Your task to perform on an android device: add a contact Image 0: 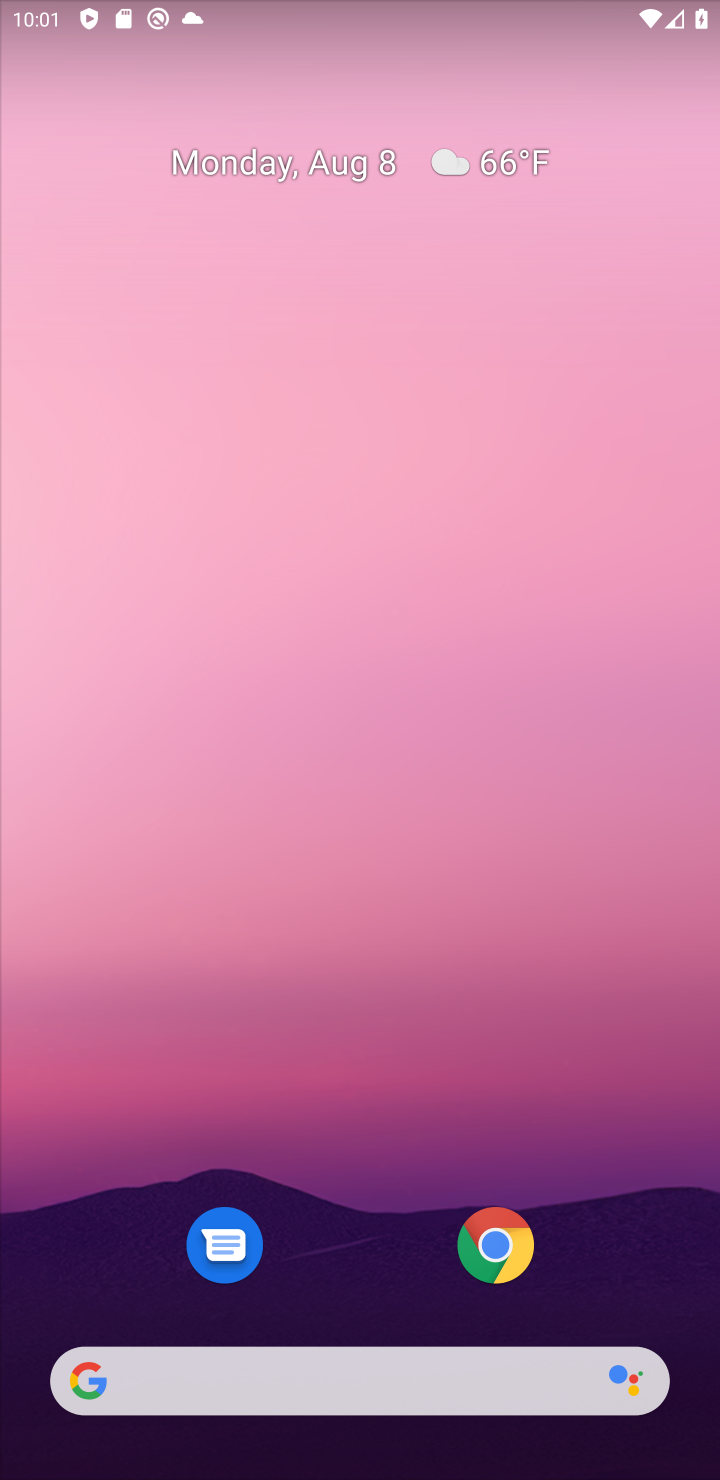
Step 0: drag from (367, 1174) to (326, 241)
Your task to perform on an android device: add a contact Image 1: 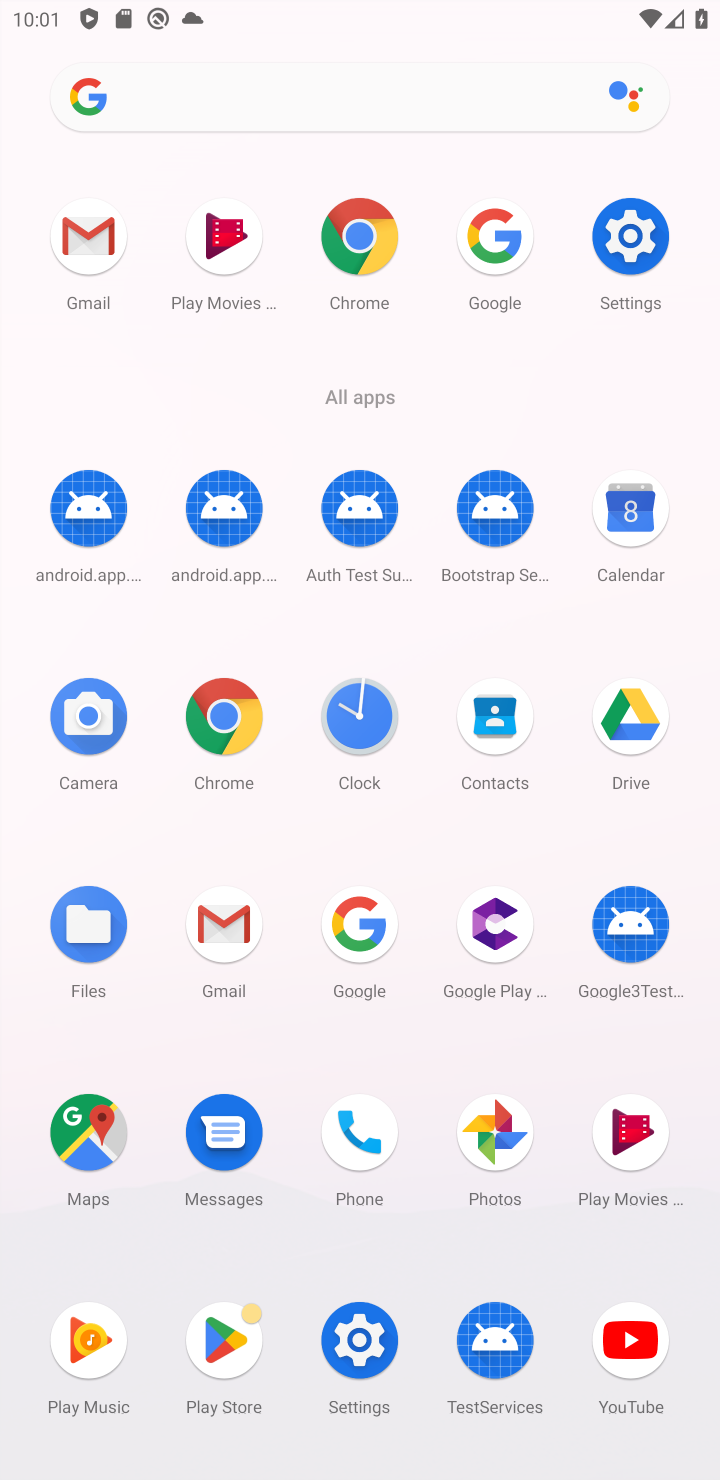
Step 1: click (495, 711)
Your task to perform on an android device: add a contact Image 2: 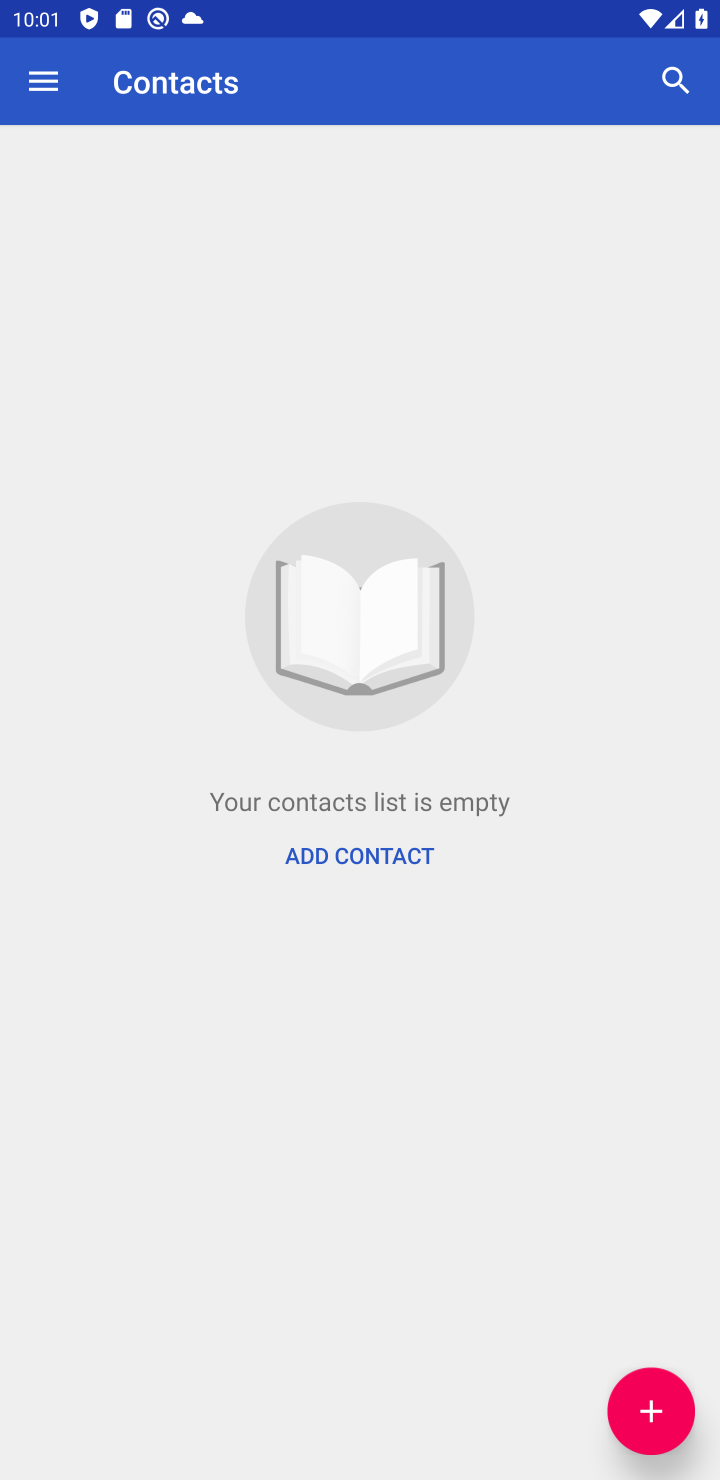
Step 2: click (654, 1410)
Your task to perform on an android device: add a contact Image 3: 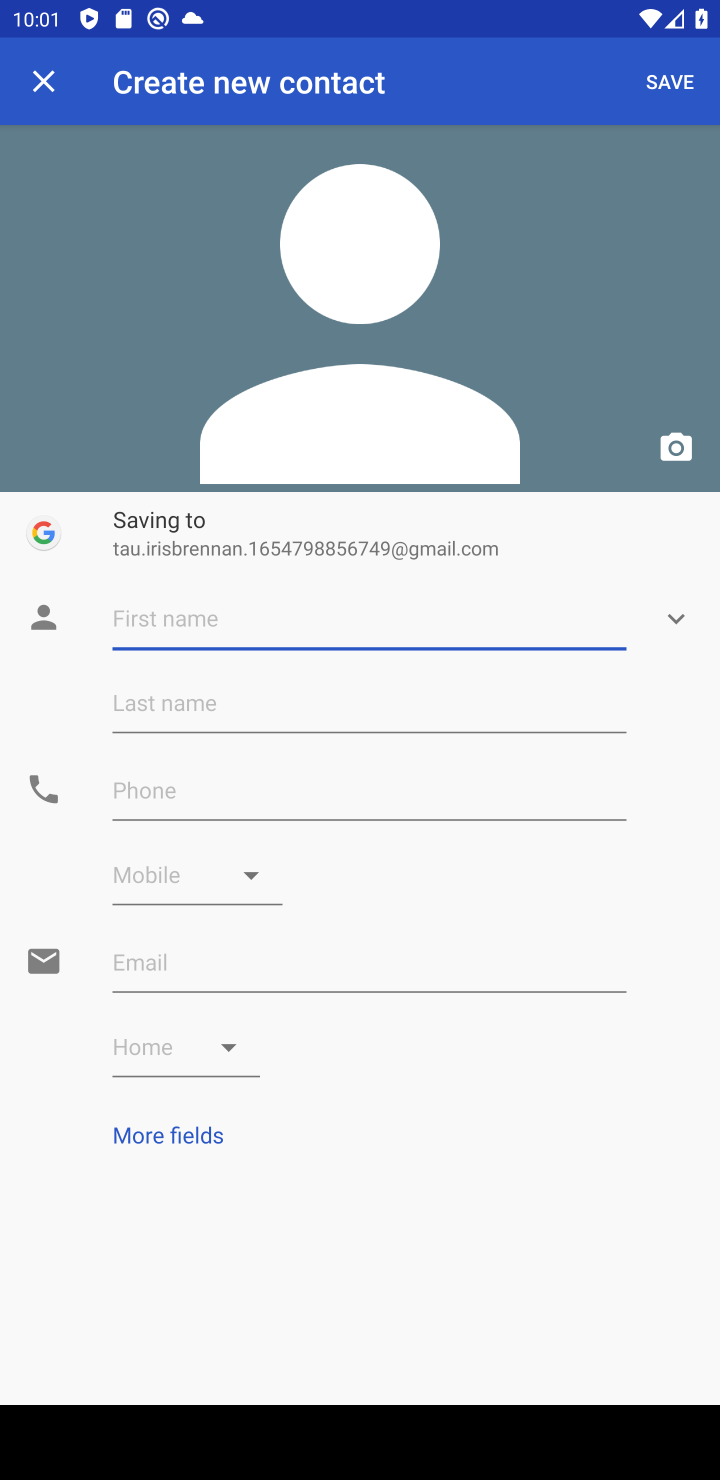
Step 3: type "nnn"
Your task to perform on an android device: add a contact Image 4: 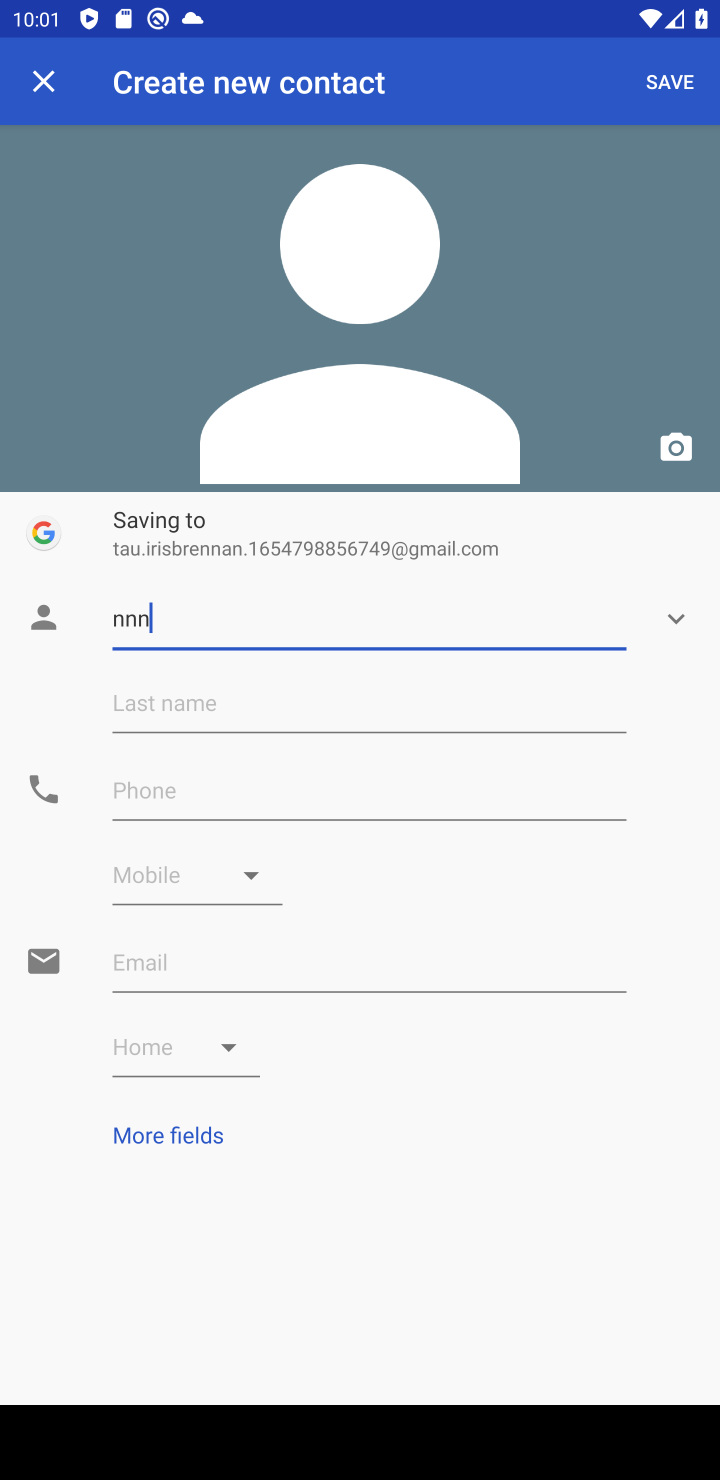
Step 4: click (218, 777)
Your task to perform on an android device: add a contact Image 5: 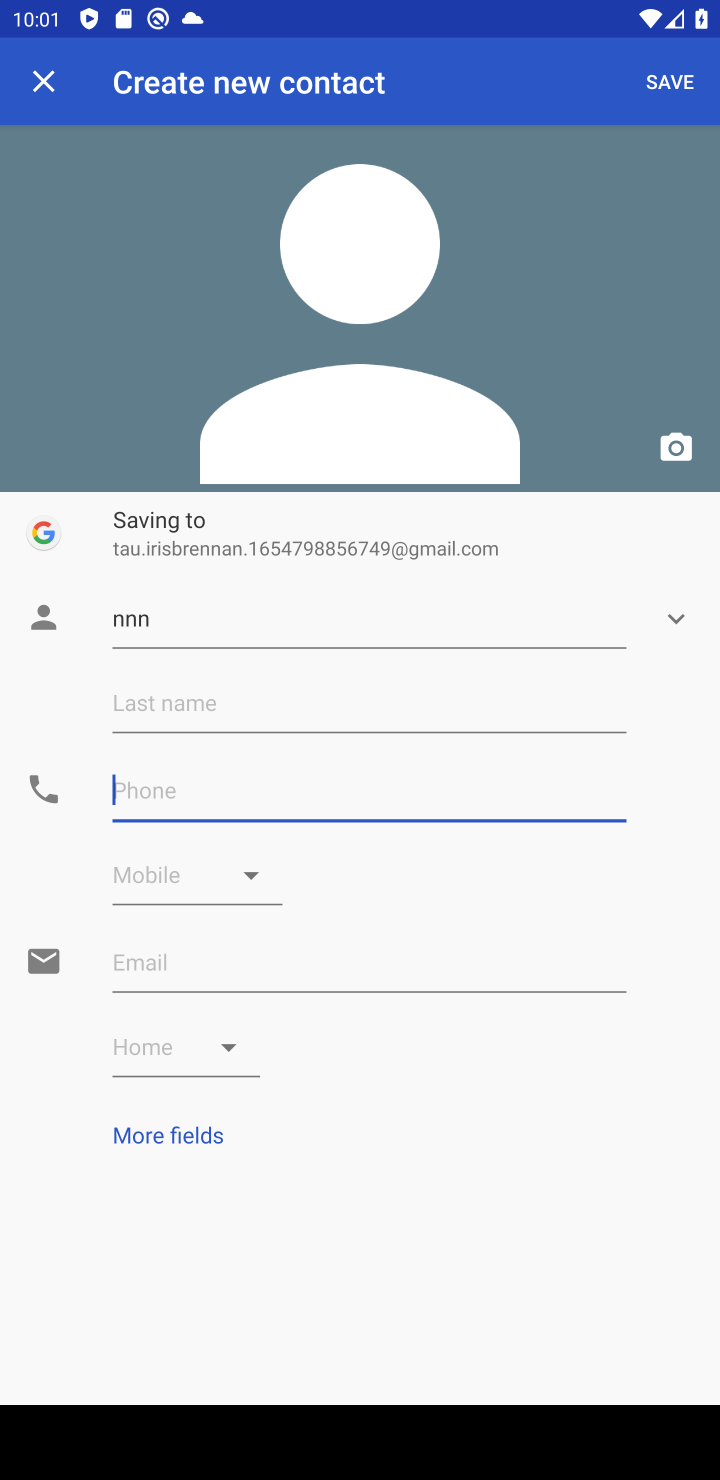
Step 5: type "88"
Your task to perform on an android device: add a contact Image 6: 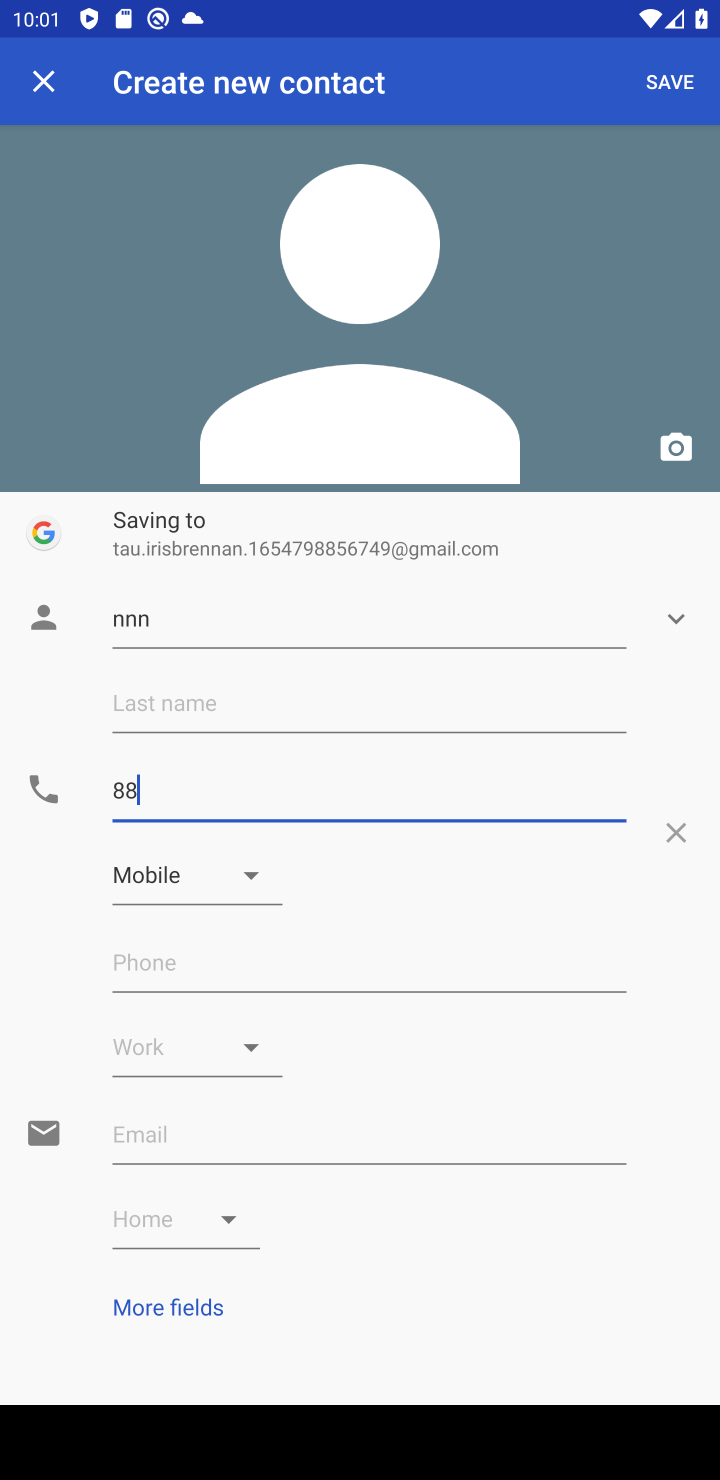
Step 6: click (679, 71)
Your task to perform on an android device: add a contact Image 7: 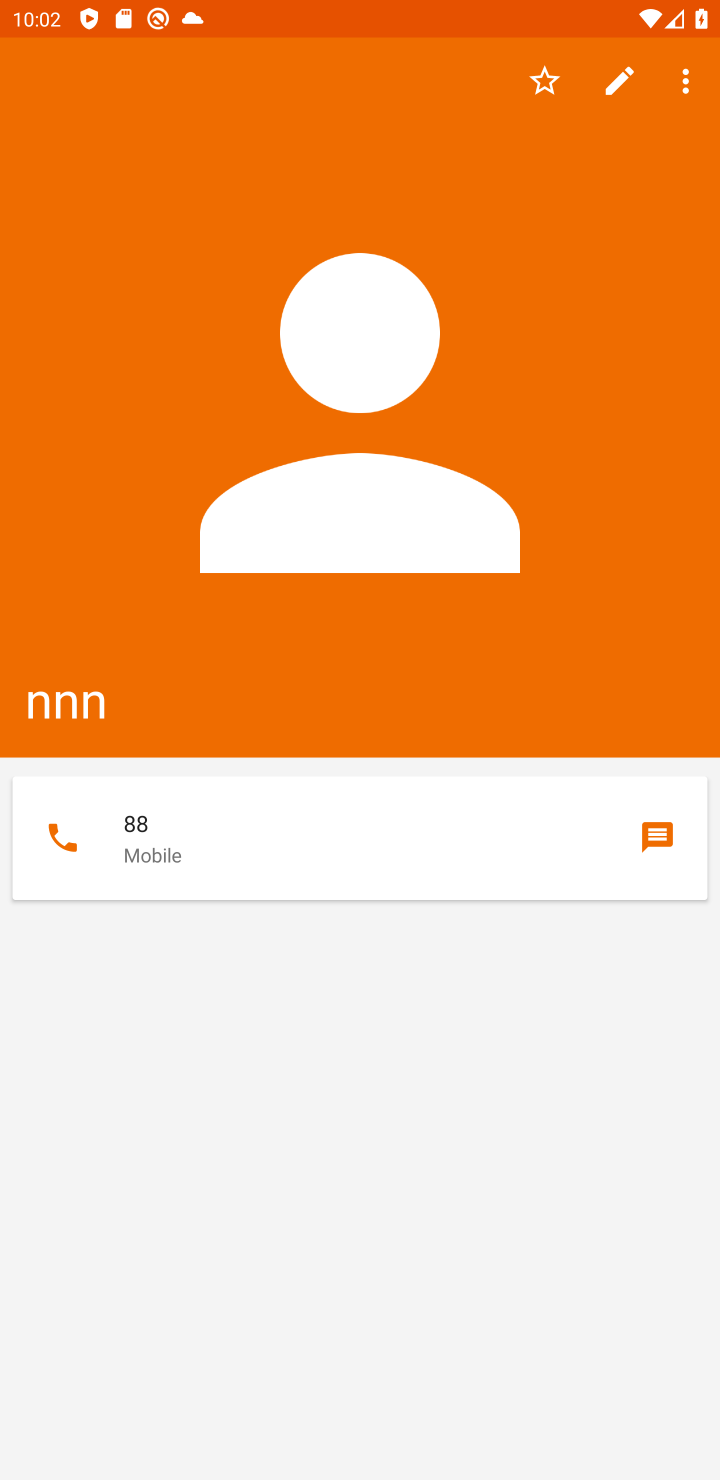
Step 7: task complete